Your task to perform on an android device: see tabs open on other devices in the chrome app Image 0: 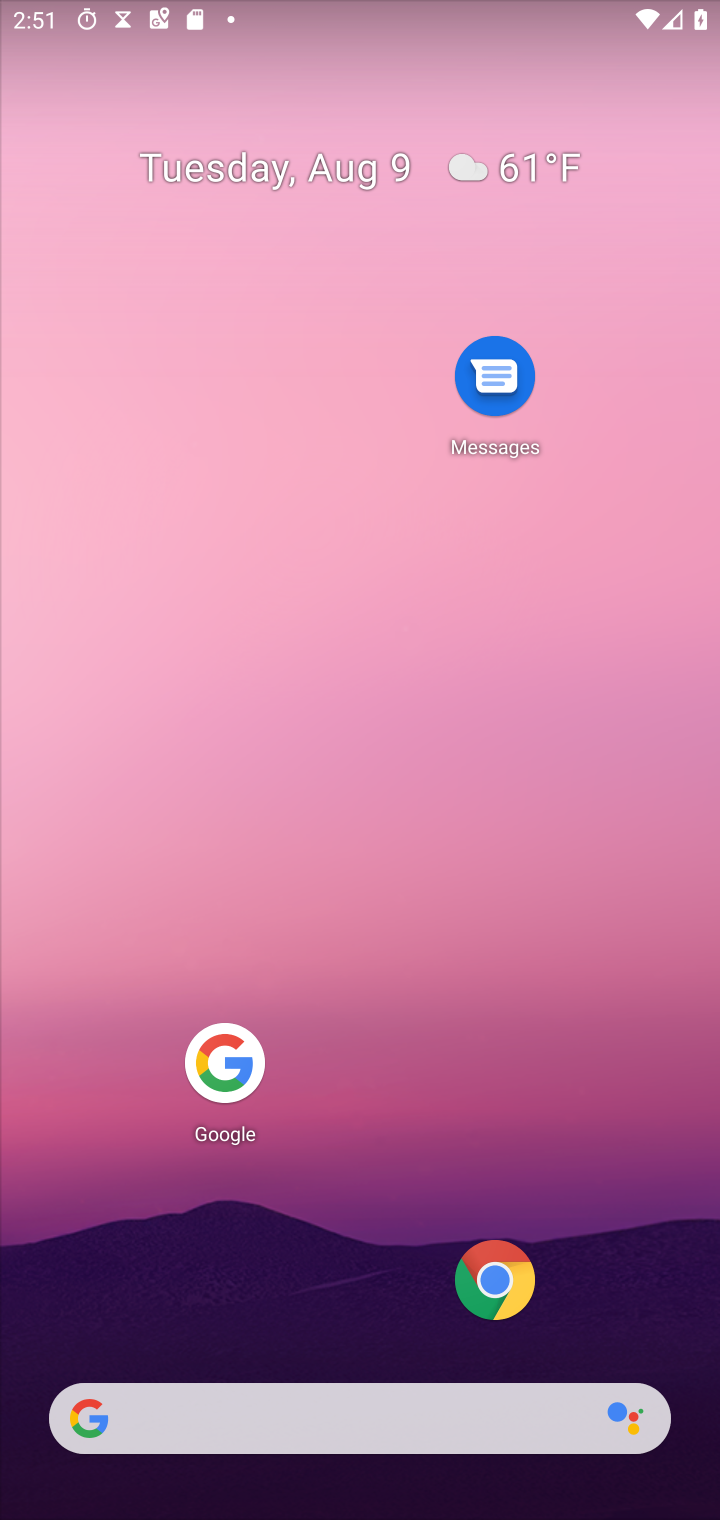
Step 0: click (483, 1273)
Your task to perform on an android device: see tabs open on other devices in the chrome app Image 1: 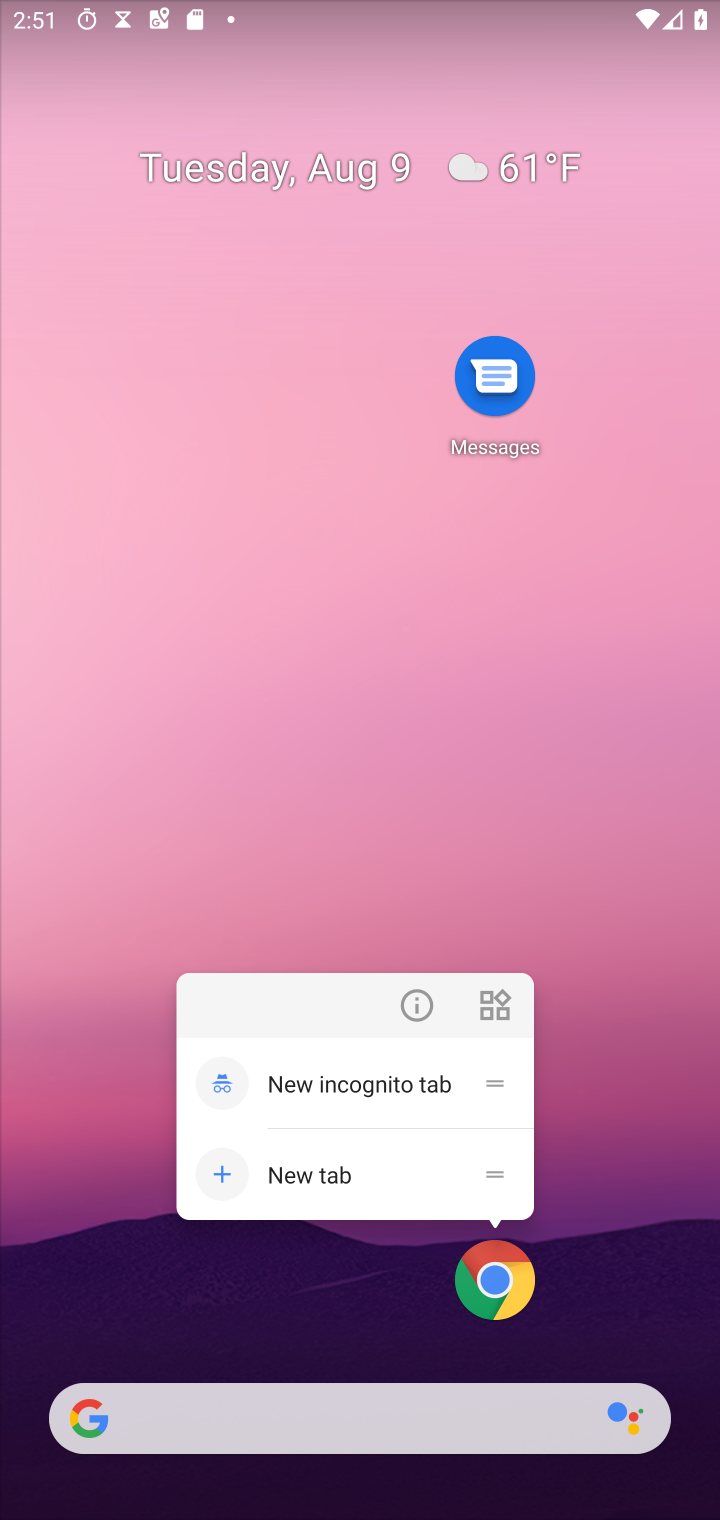
Step 1: click (483, 1280)
Your task to perform on an android device: see tabs open on other devices in the chrome app Image 2: 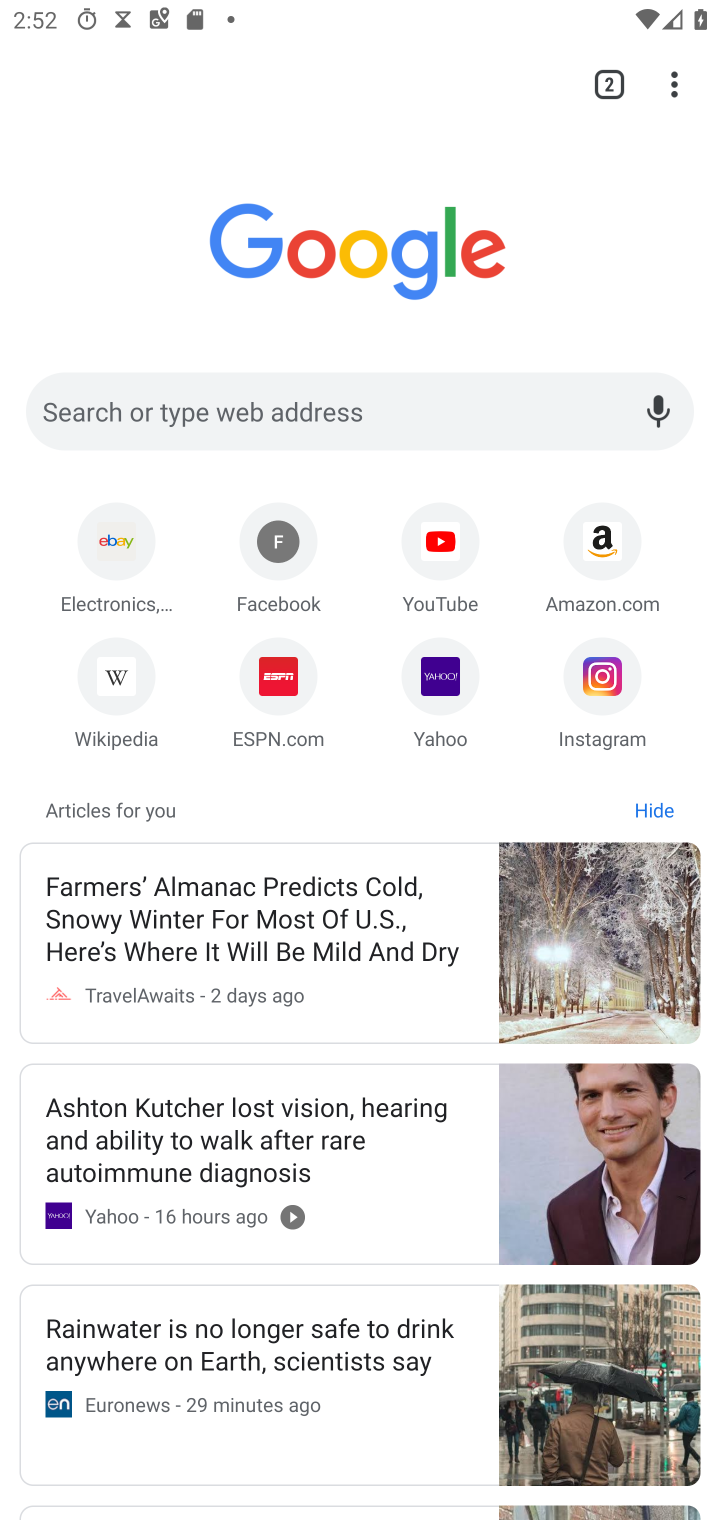
Step 2: task complete